Your task to perform on an android device: turn pop-ups on in chrome Image 0: 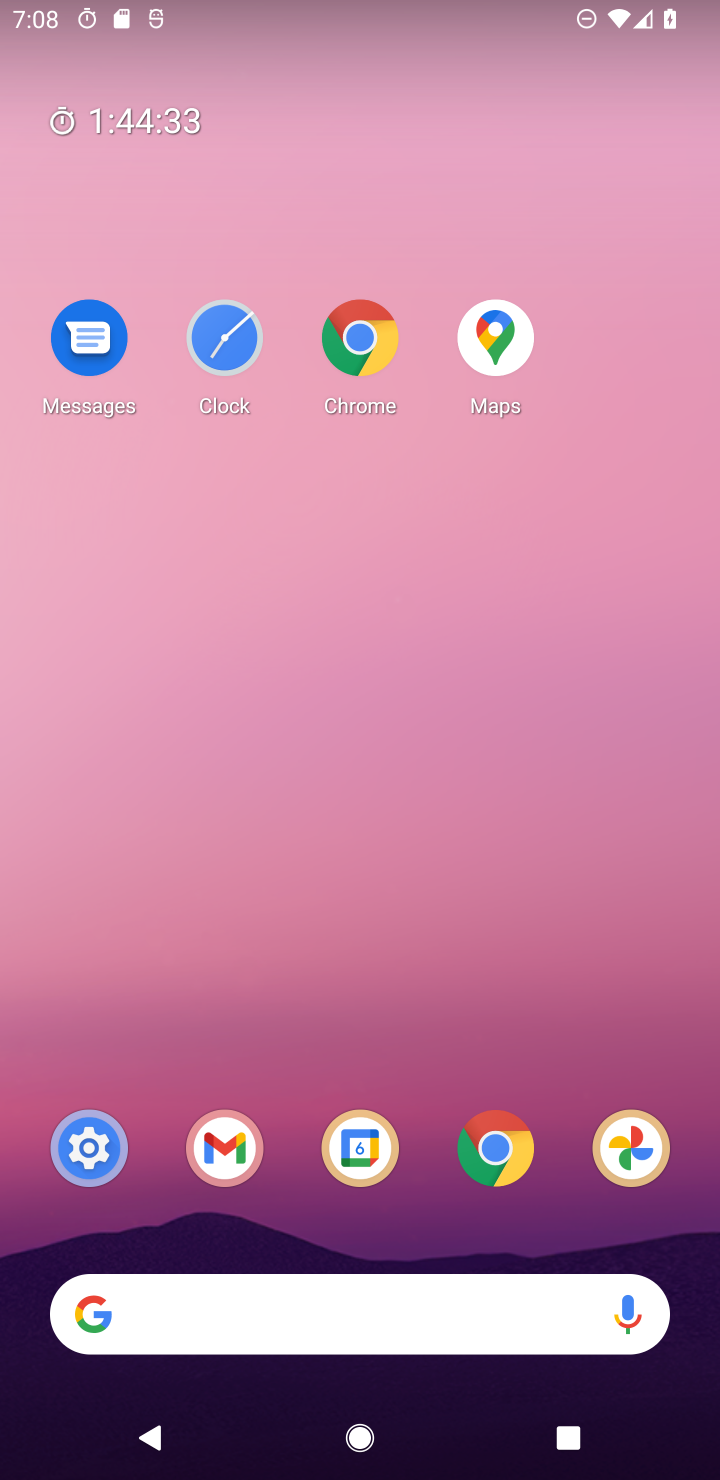
Step 0: drag from (330, 981) to (374, 193)
Your task to perform on an android device: turn pop-ups on in chrome Image 1: 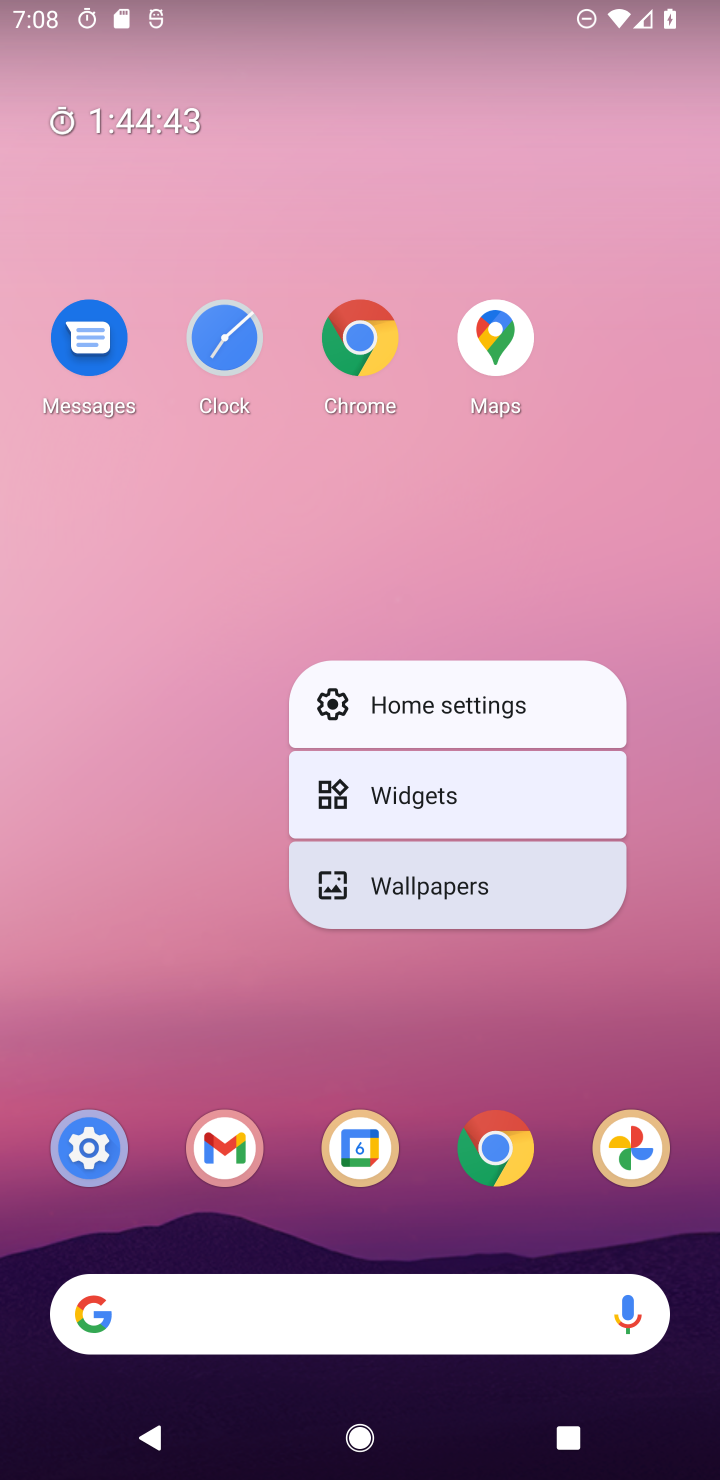
Step 1: drag from (517, 915) to (527, 473)
Your task to perform on an android device: turn pop-ups on in chrome Image 2: 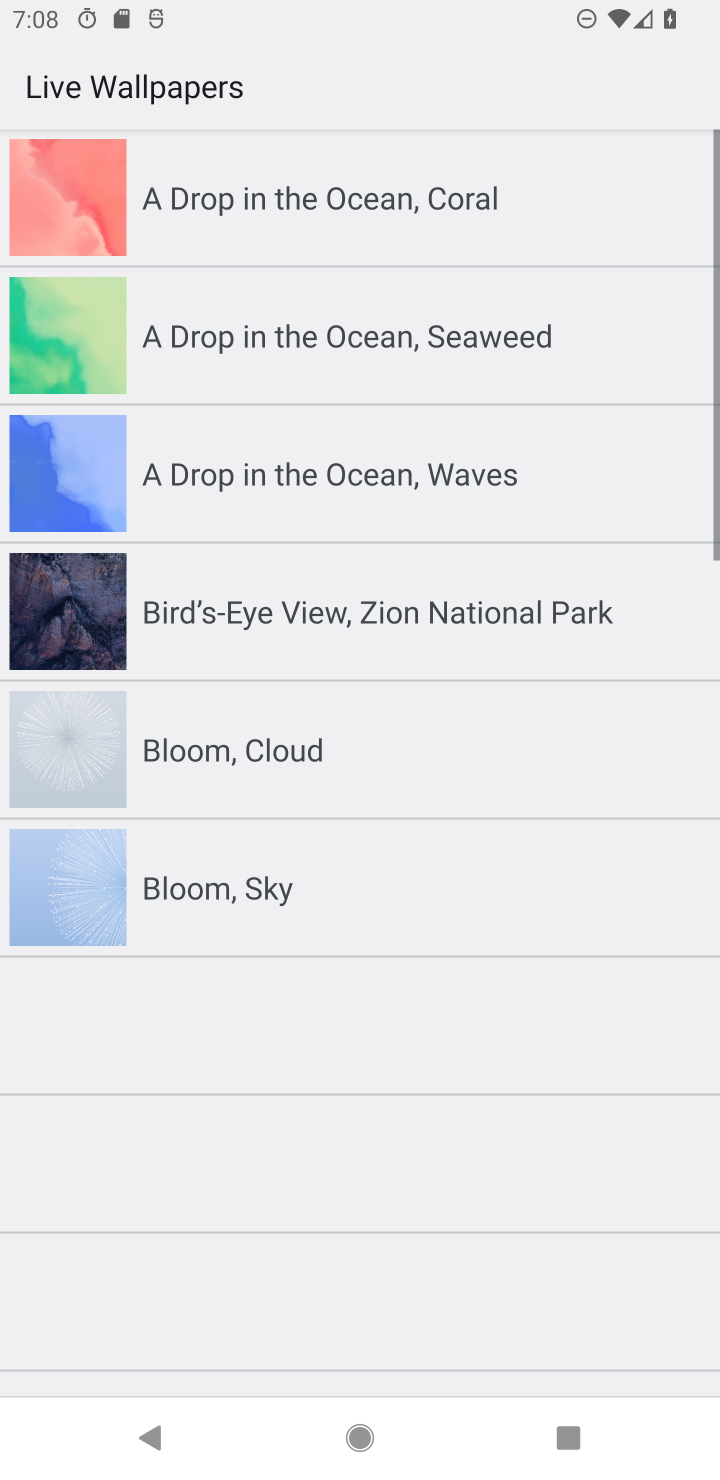
Step 2: press home button
Your task to perform on an android device: turn pop-ups on in chrome Image 3: 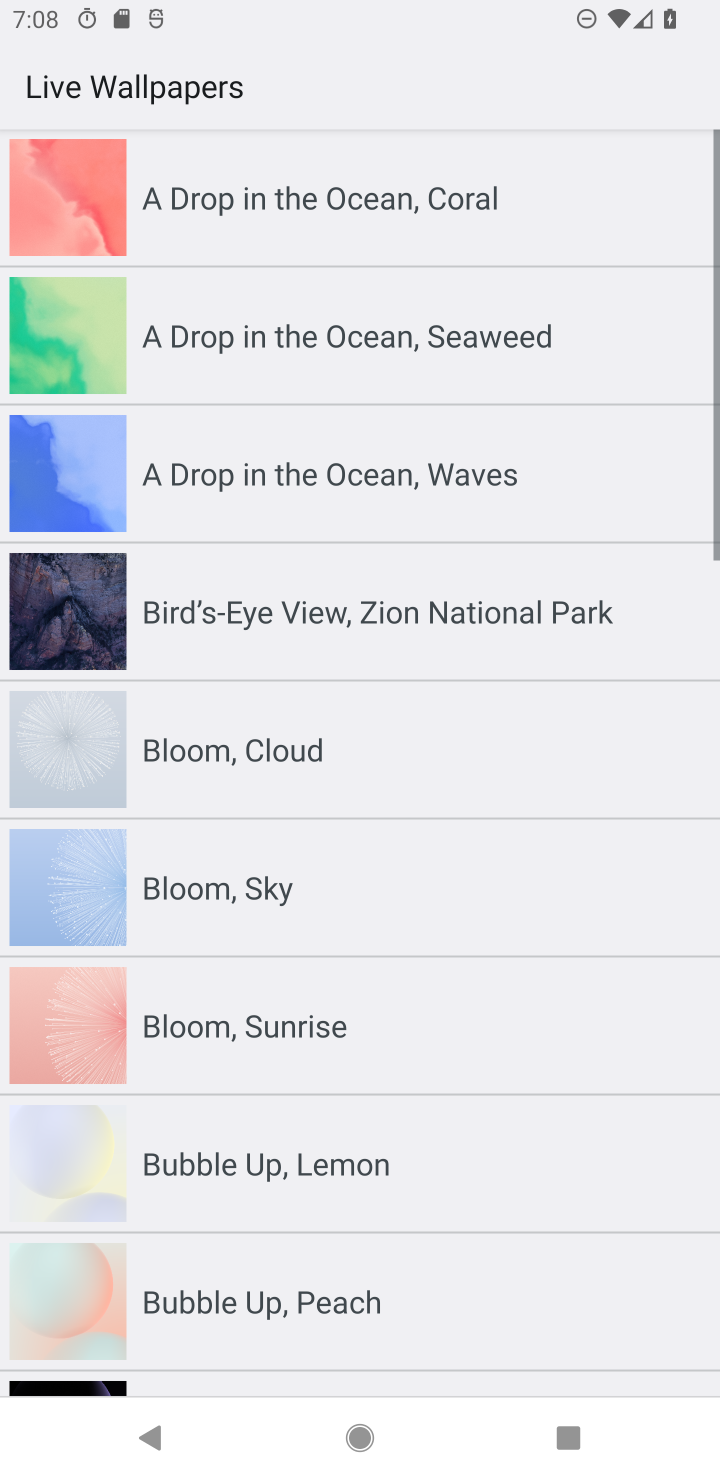
Step 3: press home button
Your task to perform on an android device: turn pop-ups on in chrome Image 4: 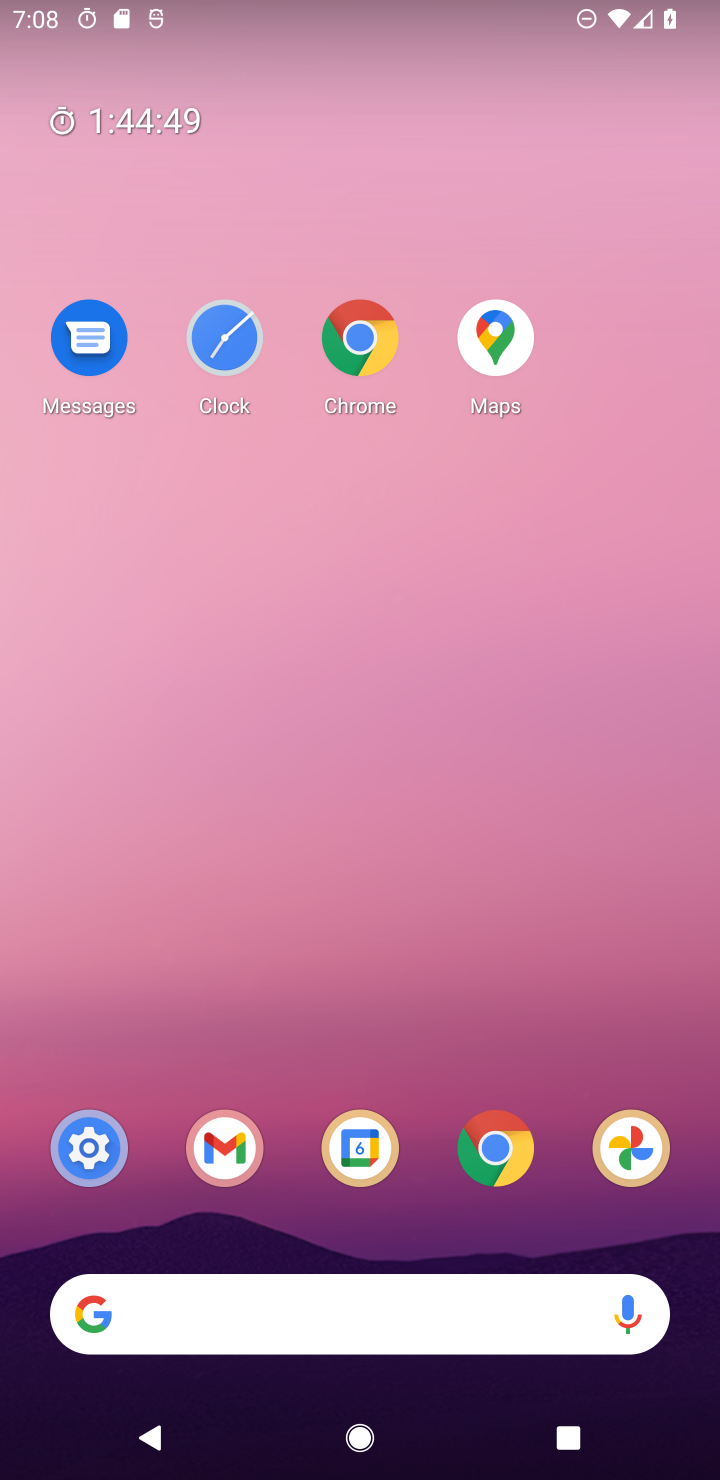
Step 4: drag from (481, 1141) to (634, 222)
Your task to perform on an android device: turn pop-ups on in chrome Image 5: 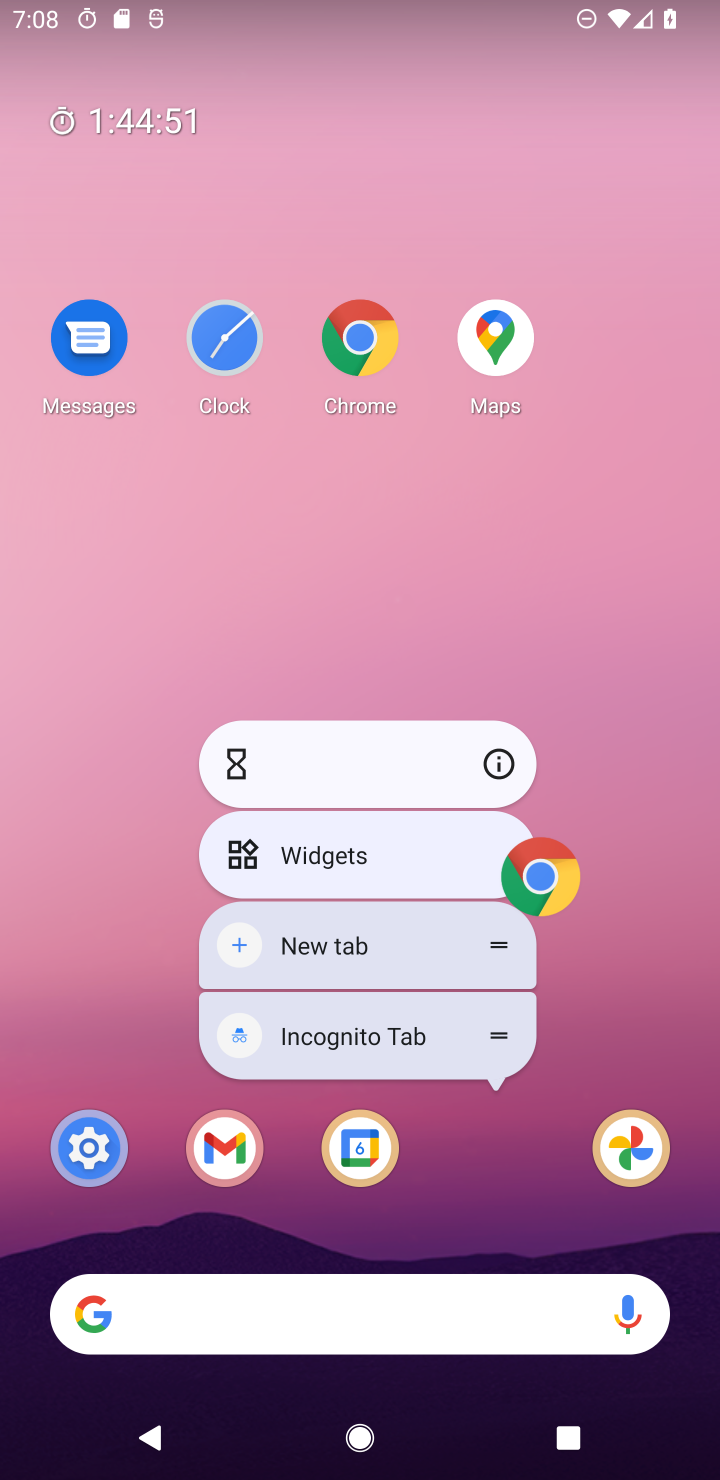
Step 5: press home button
Your task to perform on an android device: turn pop-ups on in chrome Image 6: 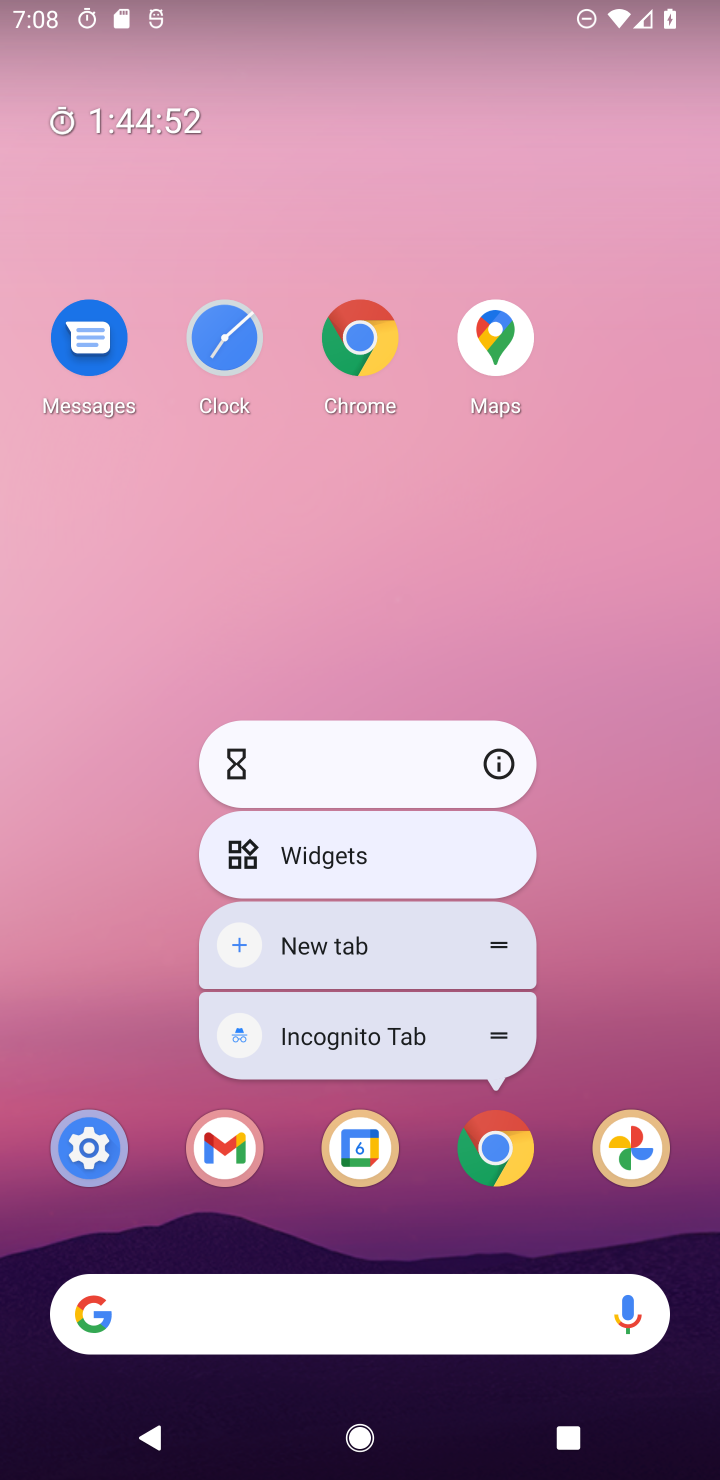
Step 6: press home button
Your task to perform on an android device: turn pop-ups on in chrome Image 7: 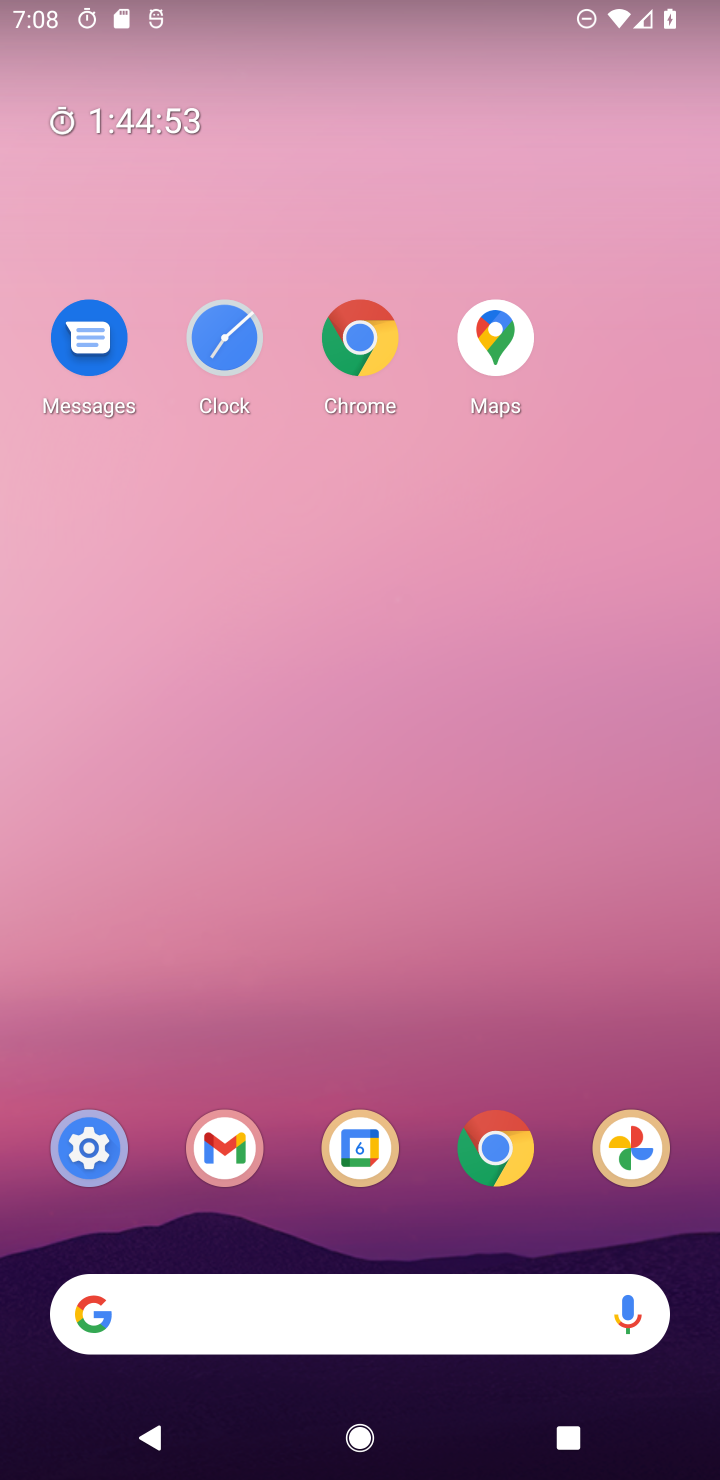
Step 7: drag from (314, 1163) to (394, 389)
Your task to perform on an android device: turn pop-ups on in chrome Image 8: 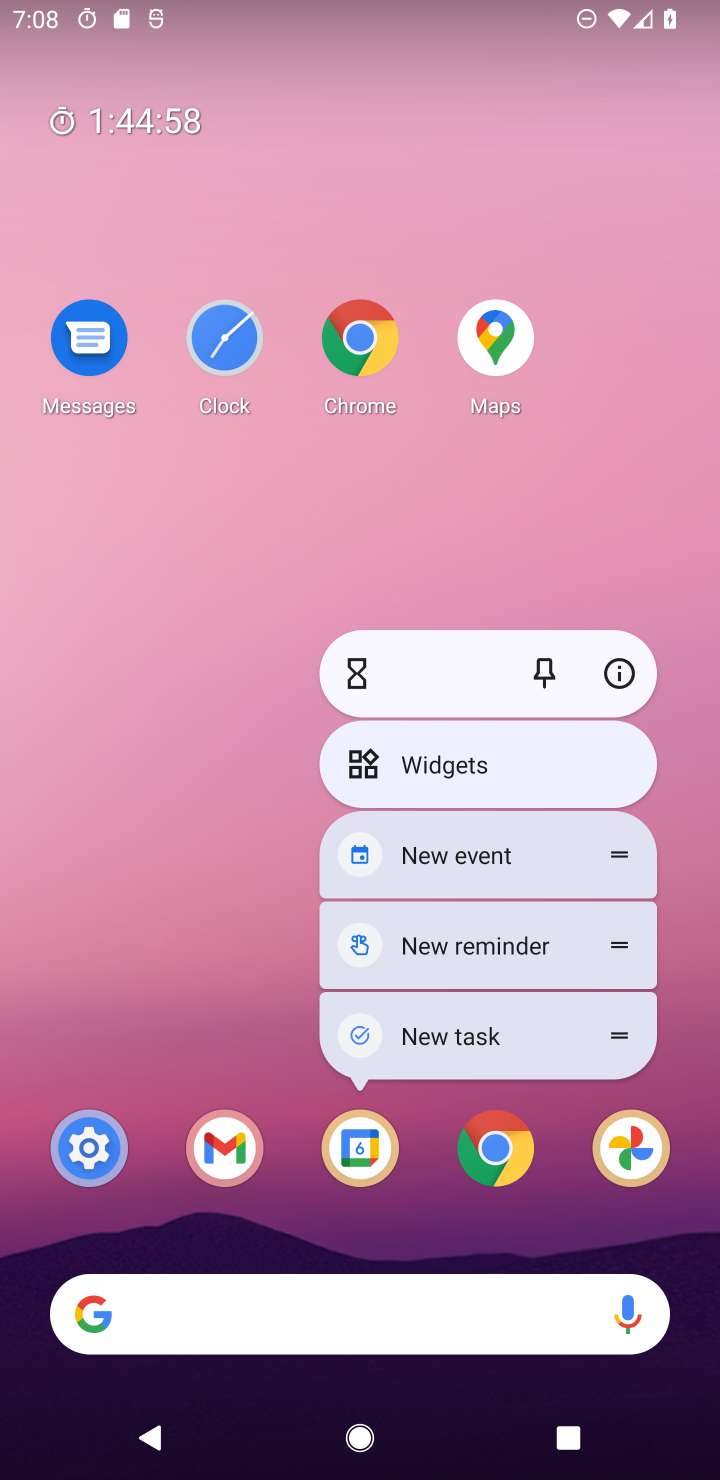
Step 8: drag from (415, 1235) to (449, 436)
Your task to perform on an android device: turn pop-ups on in chrome Image 9: 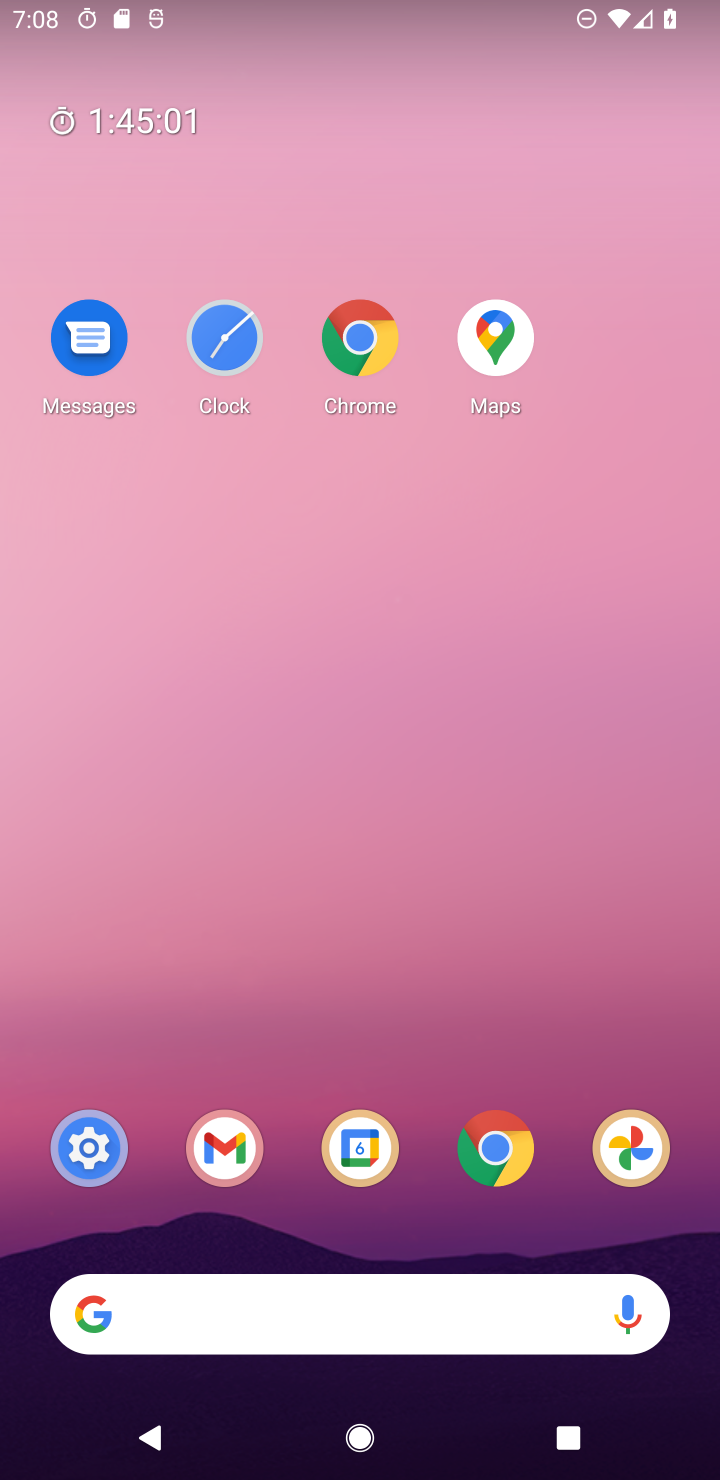
Step 9: drag from (428, 1182) to (423, 321)
Your task to perform on an android device: turn pop-ups on in chrome Image 10: 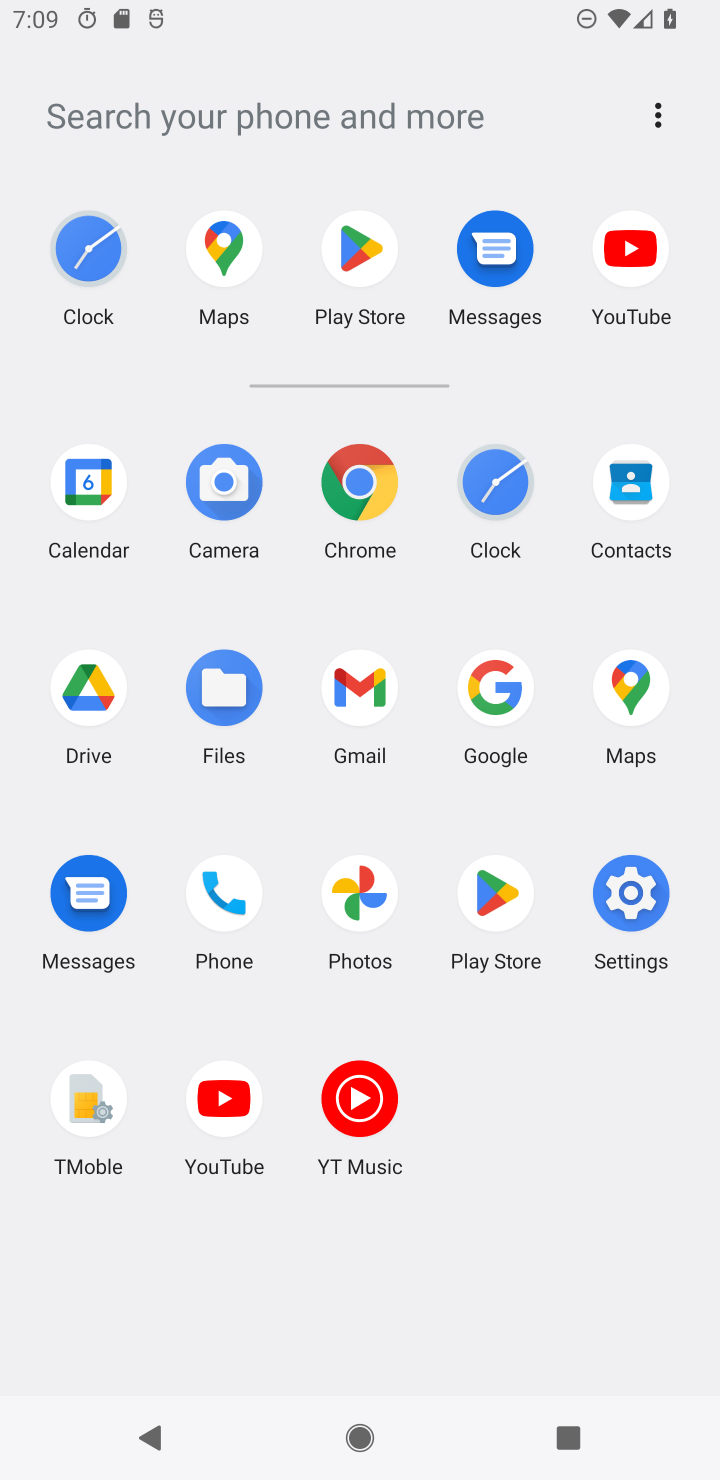
Step 10: click (363, 475)
Your task to perform on an android device: turn pop-ups on in chrome Image 11: 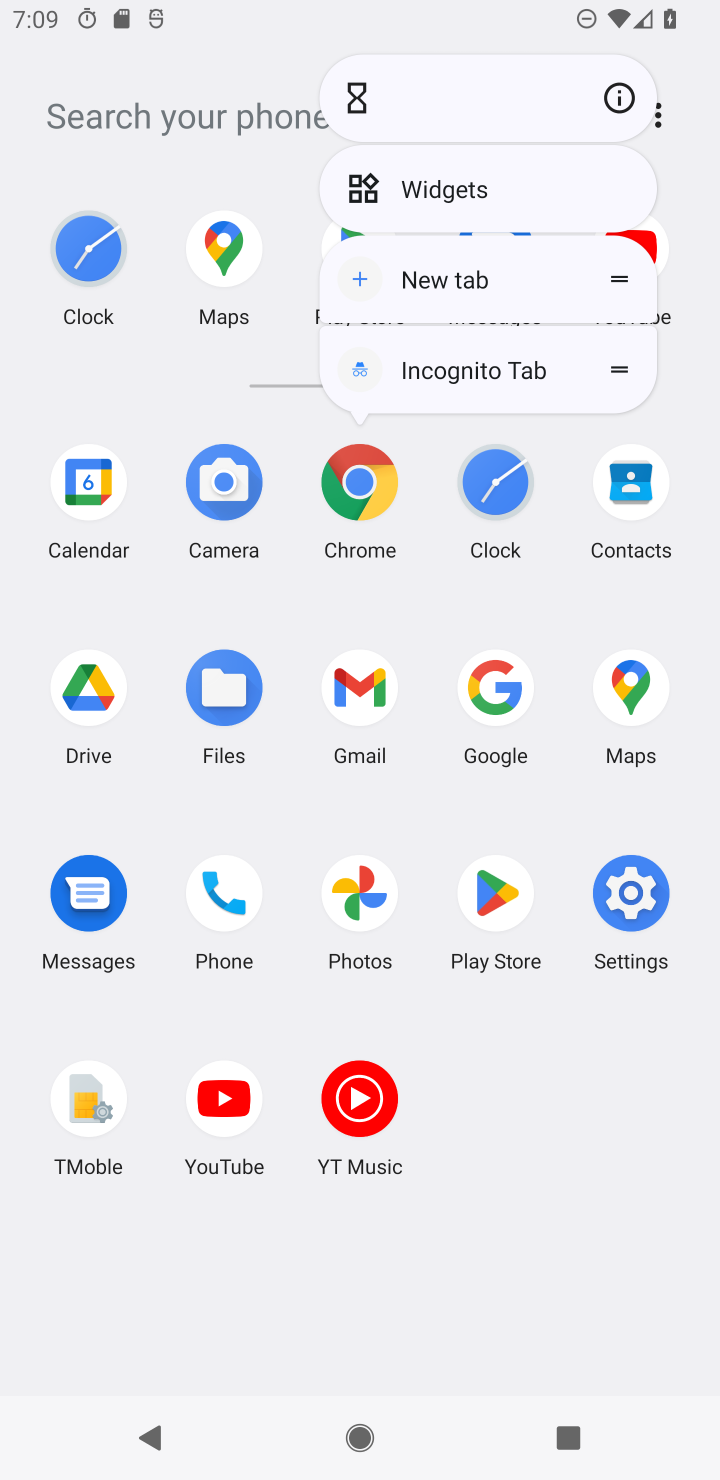
Step 11: click (618, 92)
Your task to perform on an android device: turn pop-ups on in chrome Image 12: 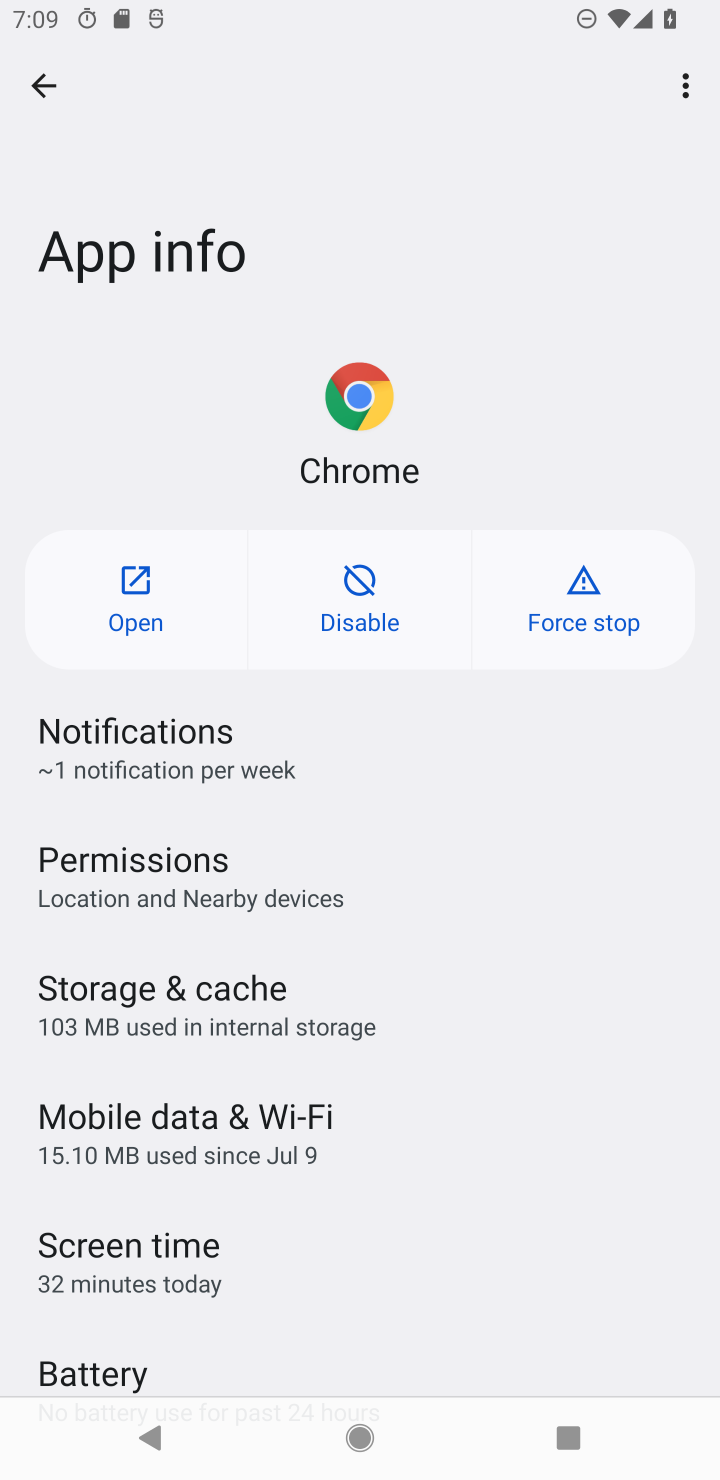
Step 12: click (110, 595)
Your task to perform on an android device: turn pop-ups on in chrome Image 13: 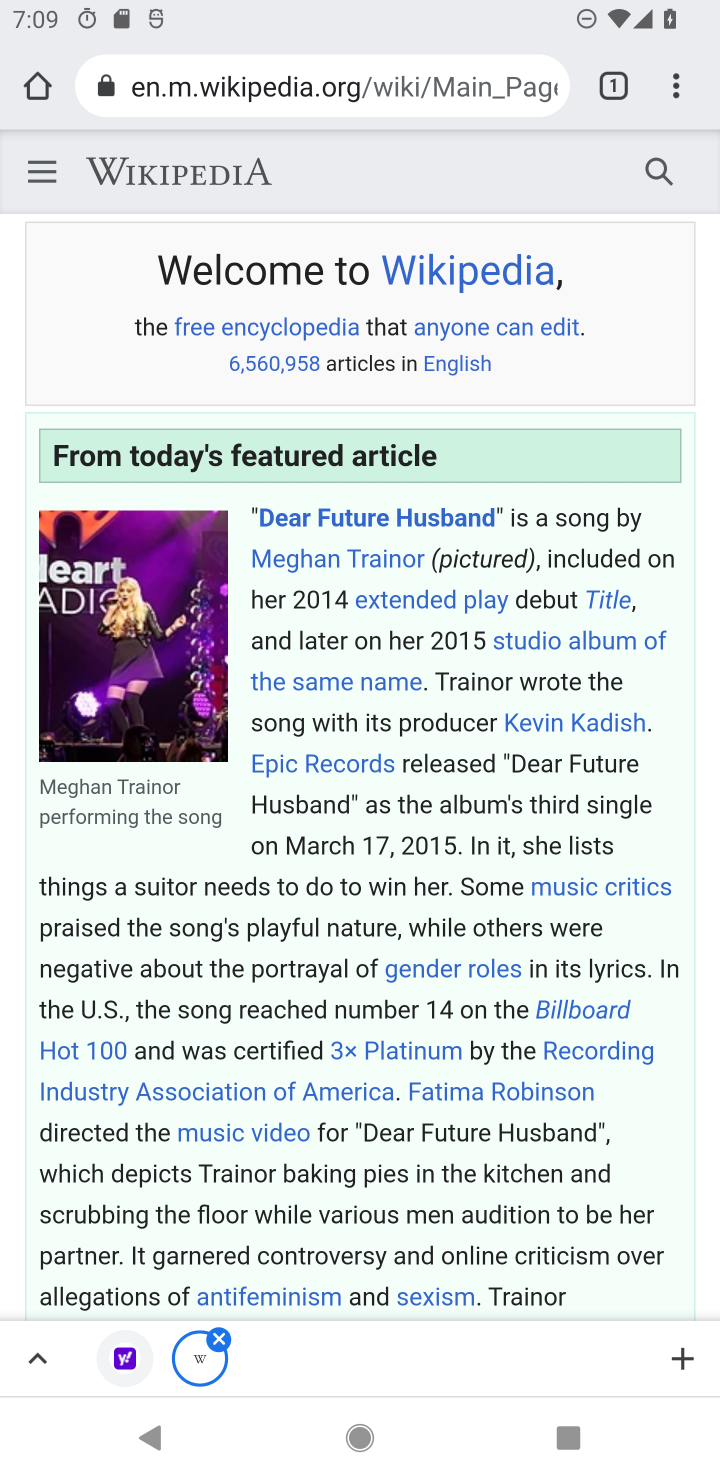
Step 13: drag from (367, 860) to (477, 481)
Your task to perform on an android device: turn pop-ups on in chrome Image 14: 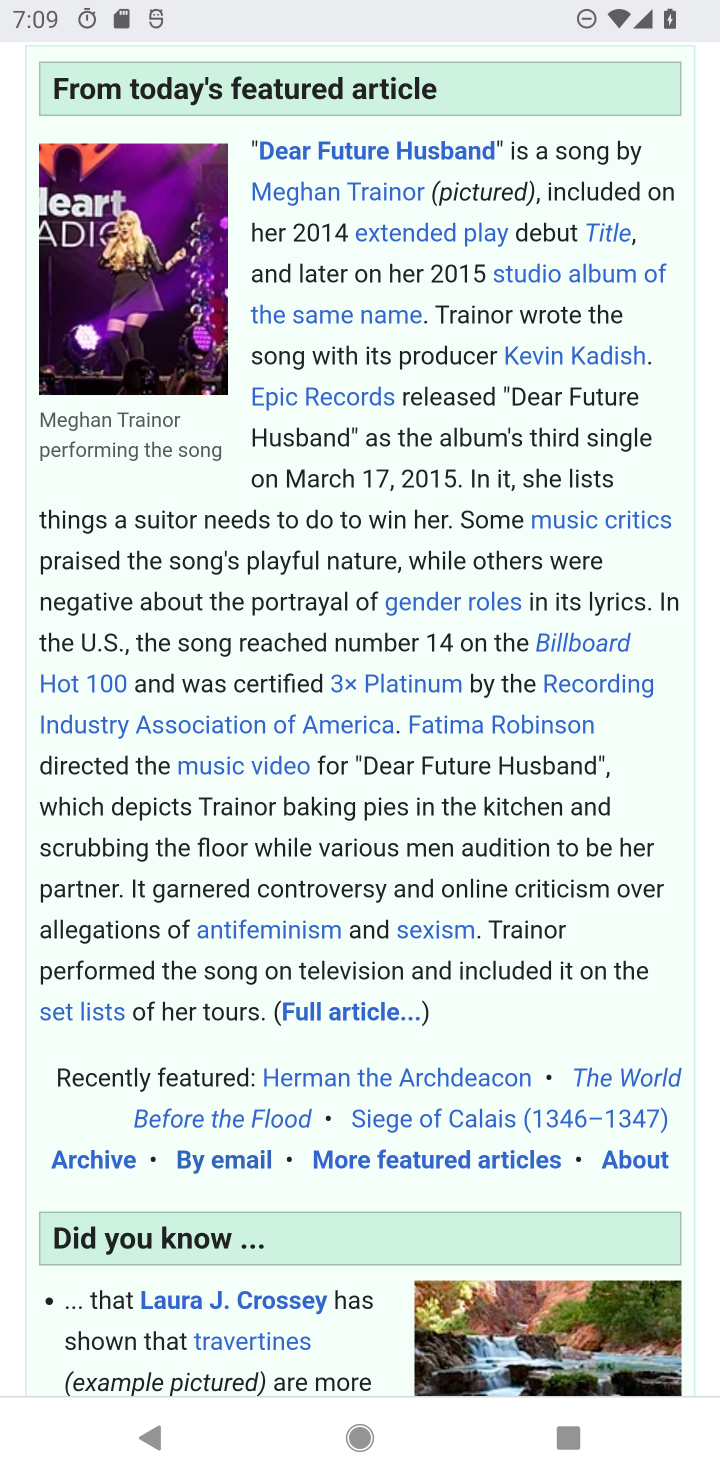
Step 14: drag from (466, 521) to (489, 1183)
Your task to perform on an android device: turn pop-ups on in chrome Image 15: 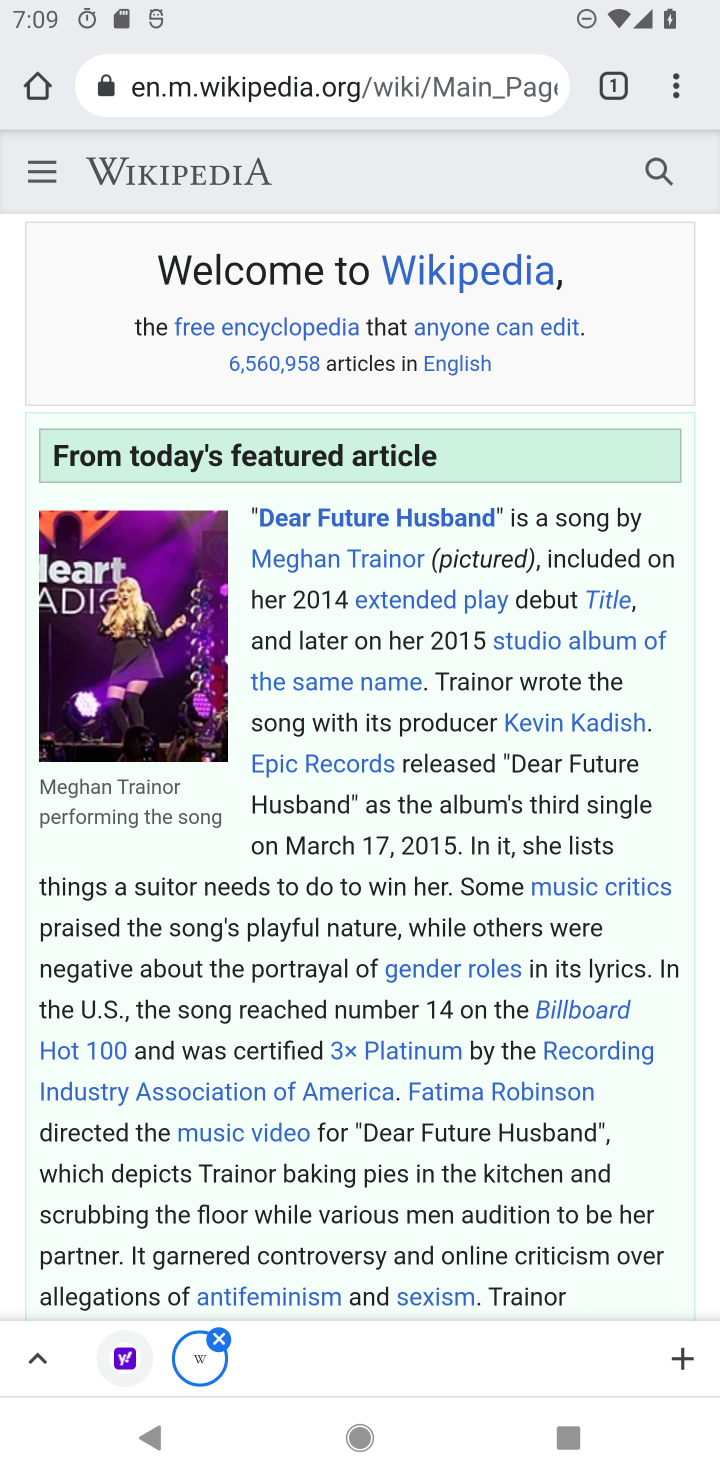
Step 15: drag from (452, 810) to (537, 390)
Your task to perform on an android device: turn pop-ups on in chrome Image 16: 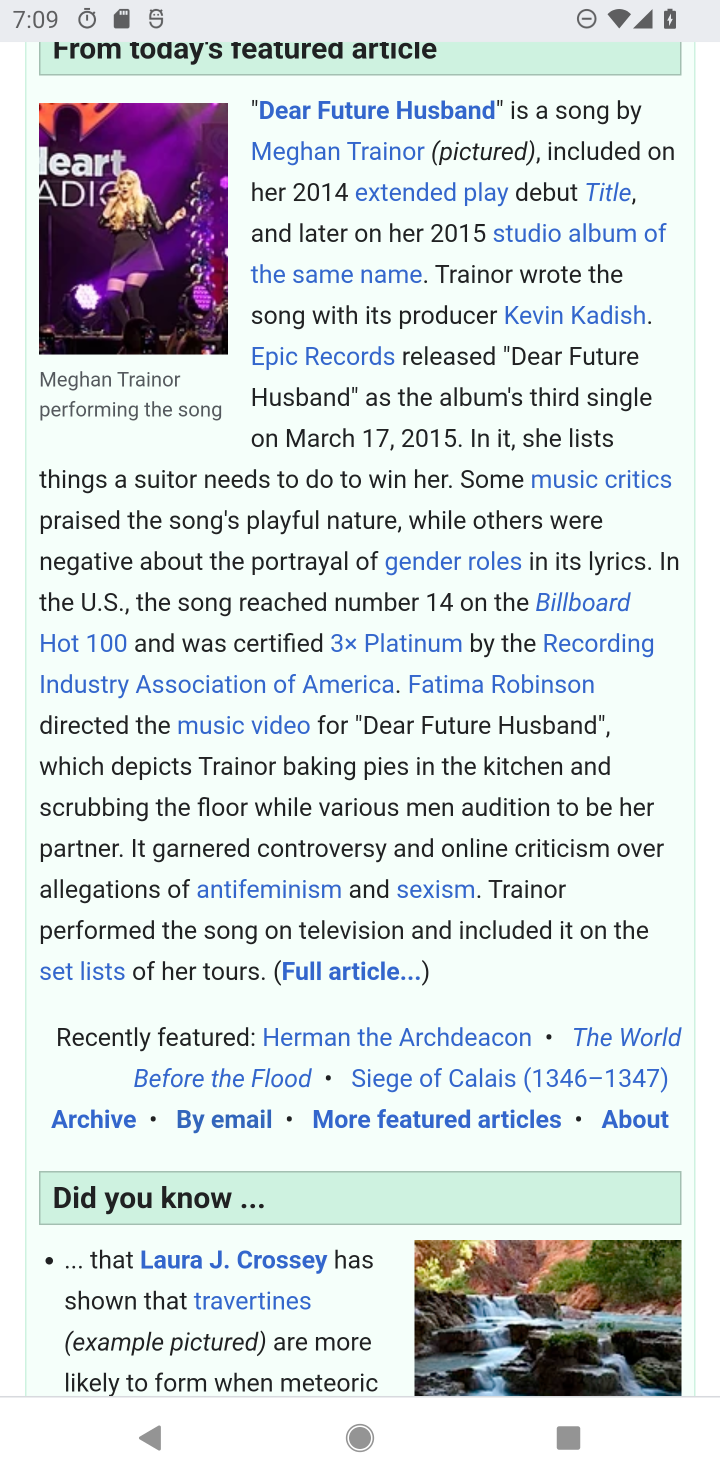
Step 16: drag from (451, 435) to (574, 1479)
Your task to perform on an android device: turn pop-ups on in chrome Image 17: 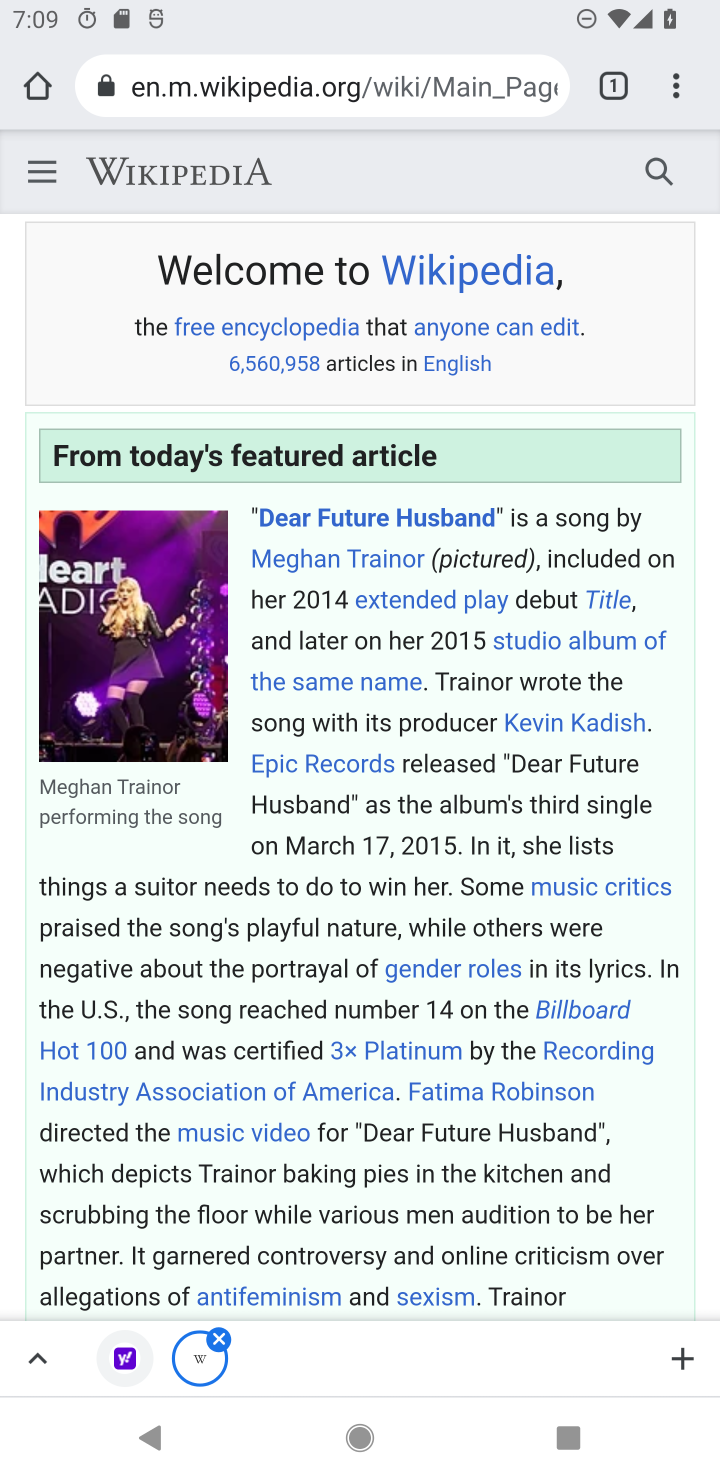
Step 17: drag from (671, 79) to (464, 1153)
Your task to perform on an android device: turn pop-ups on in chrome Image 18: 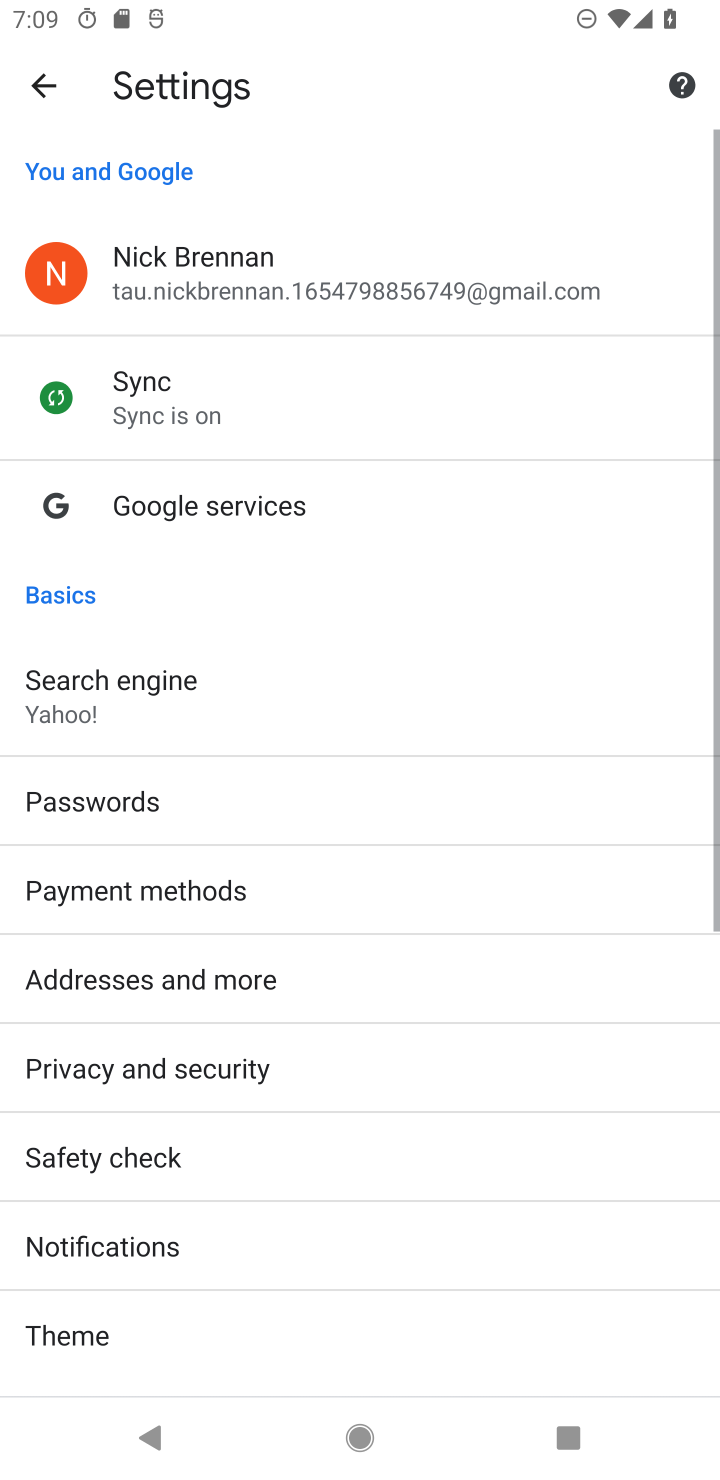
Step 18: drag from (421, 649) to (480, 21)
Your task to perform on an android device: turn pop-ups on in chrome Image 19: 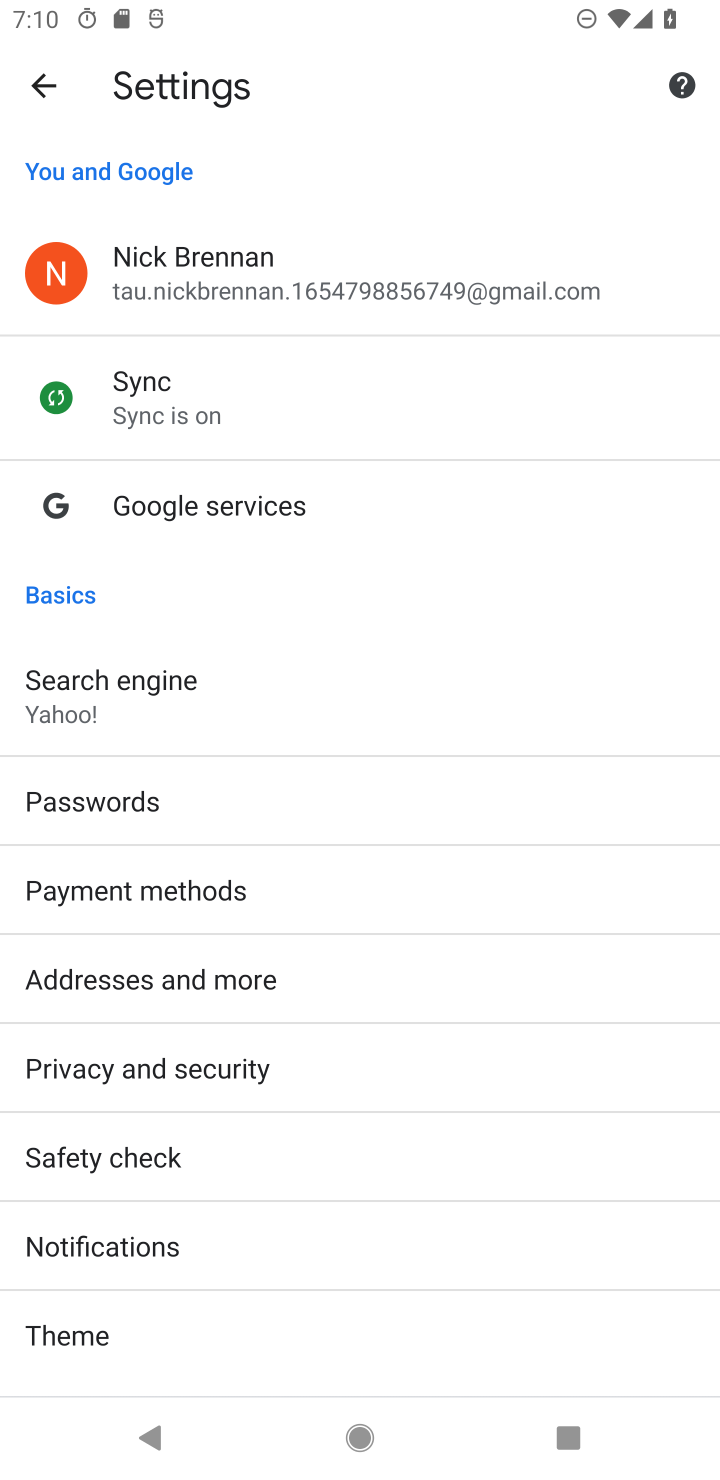
Step 19: drag from (365, 952) to (482, 417)
Your task to perform on an android device: turn pop-ups on in chrome Image 20: 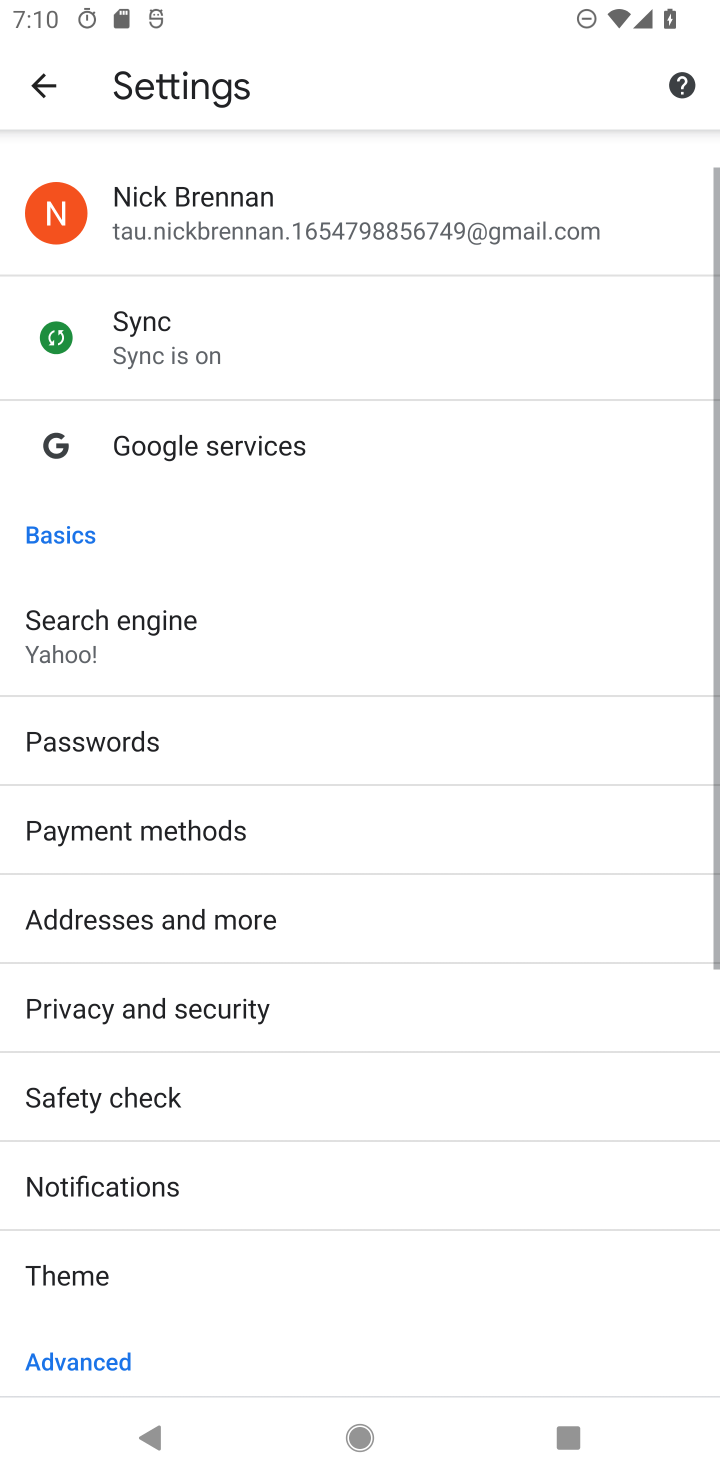
Step 20: drag from (335, 1269) to (370, 675)
Your task to perform on an android device: turn pop-ups on in chrome Image 21: 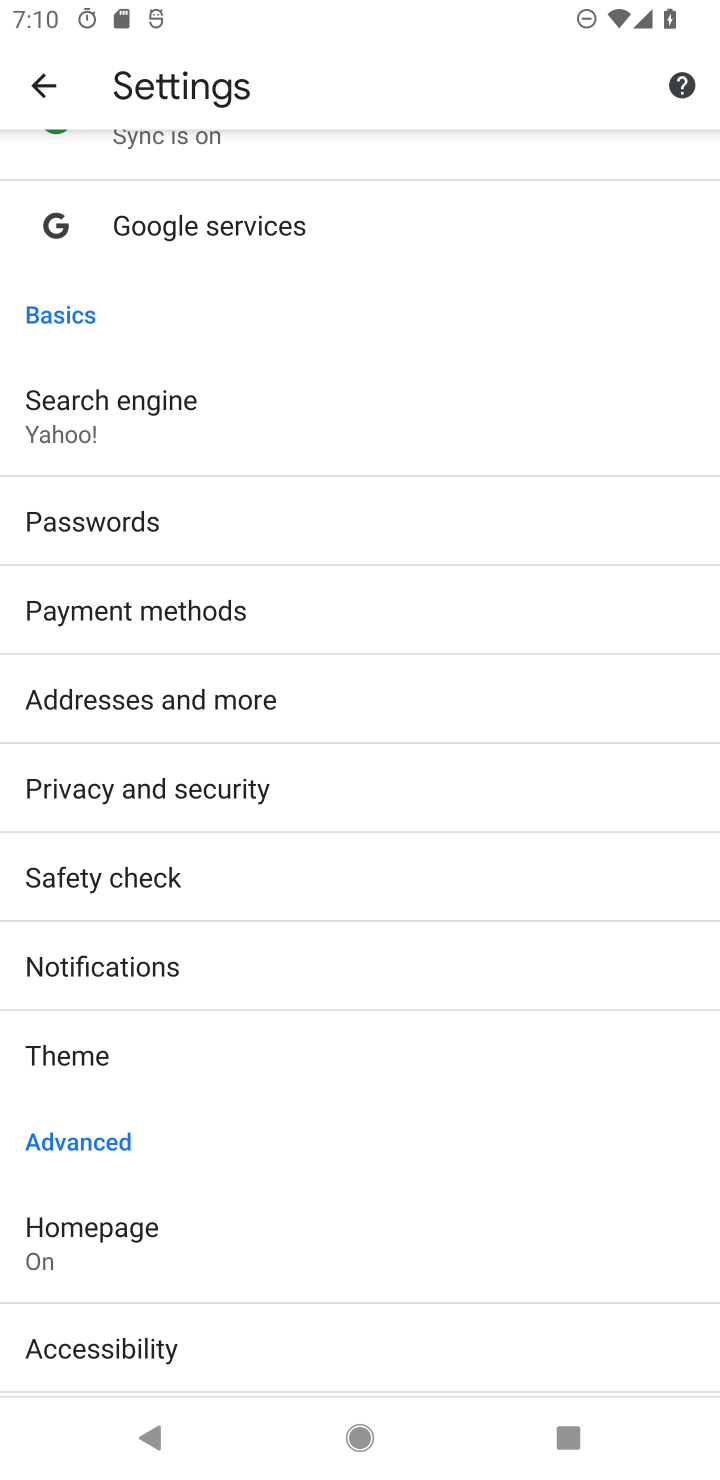
Step 21: drag from (297, 1308) to (417, 316)
Your task to perform on an android device: turn pop-ups on in chrome Image 22: 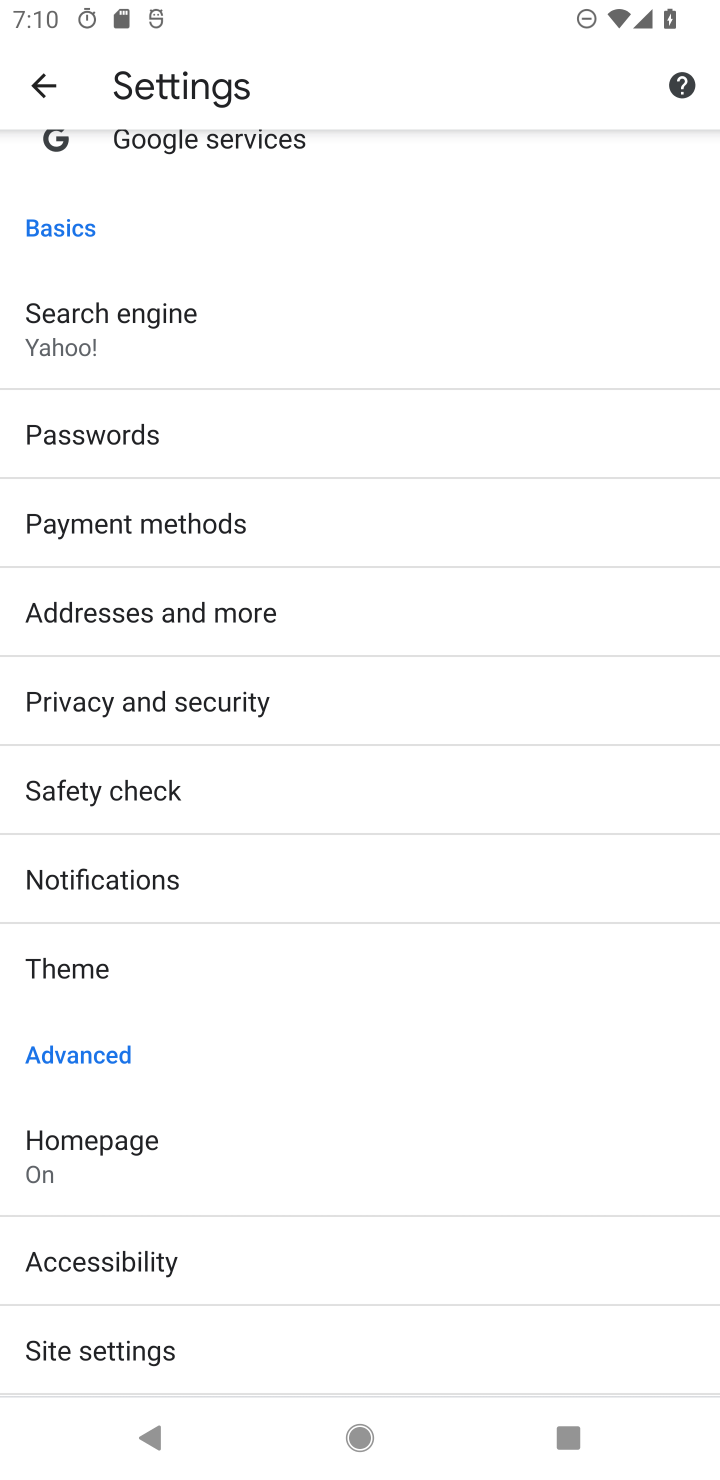
Step 22: drag from (390, 1101) to (473, 267)
Your task to perform on an android device: turn pop-ups on in chrome Image 23: 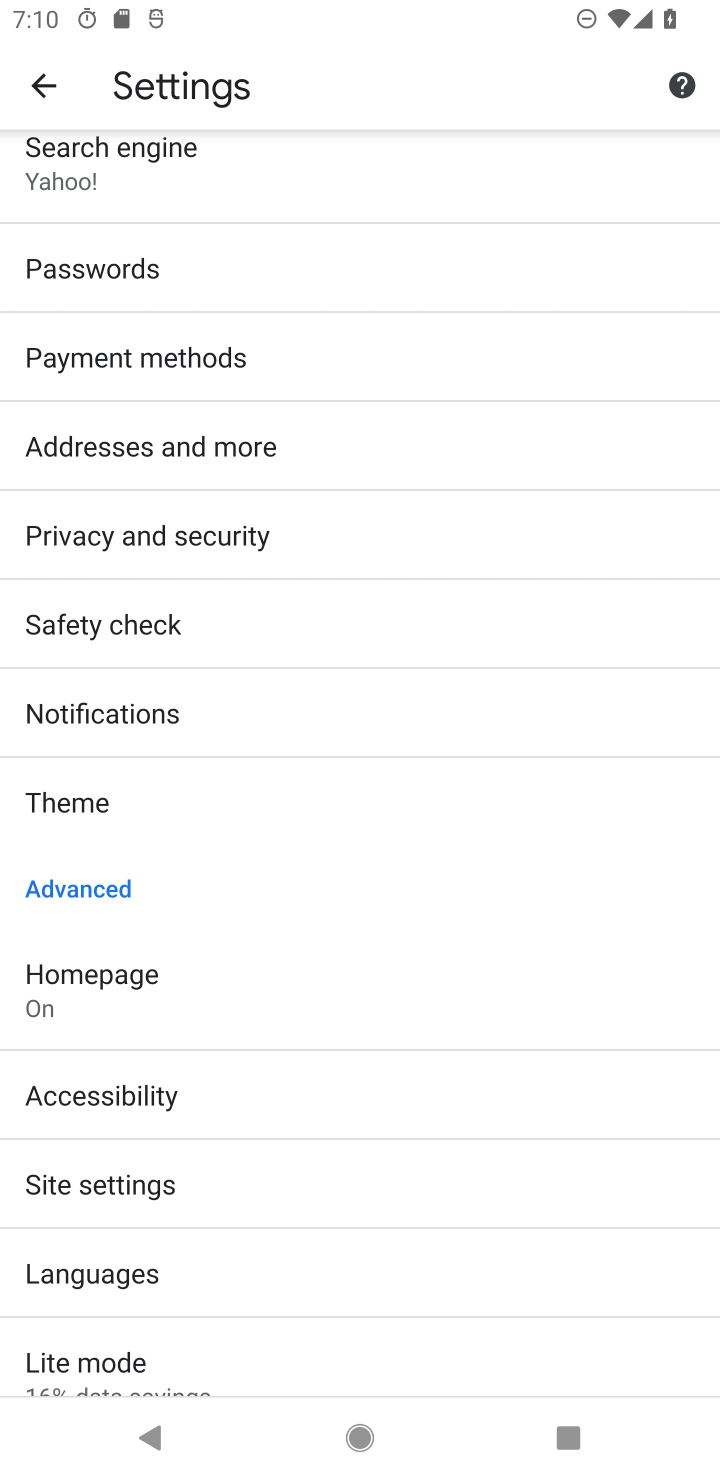
Step 23: click (219, 1168)
Your task to perform on an android device: turn pop-ups on in chrome Image 24: 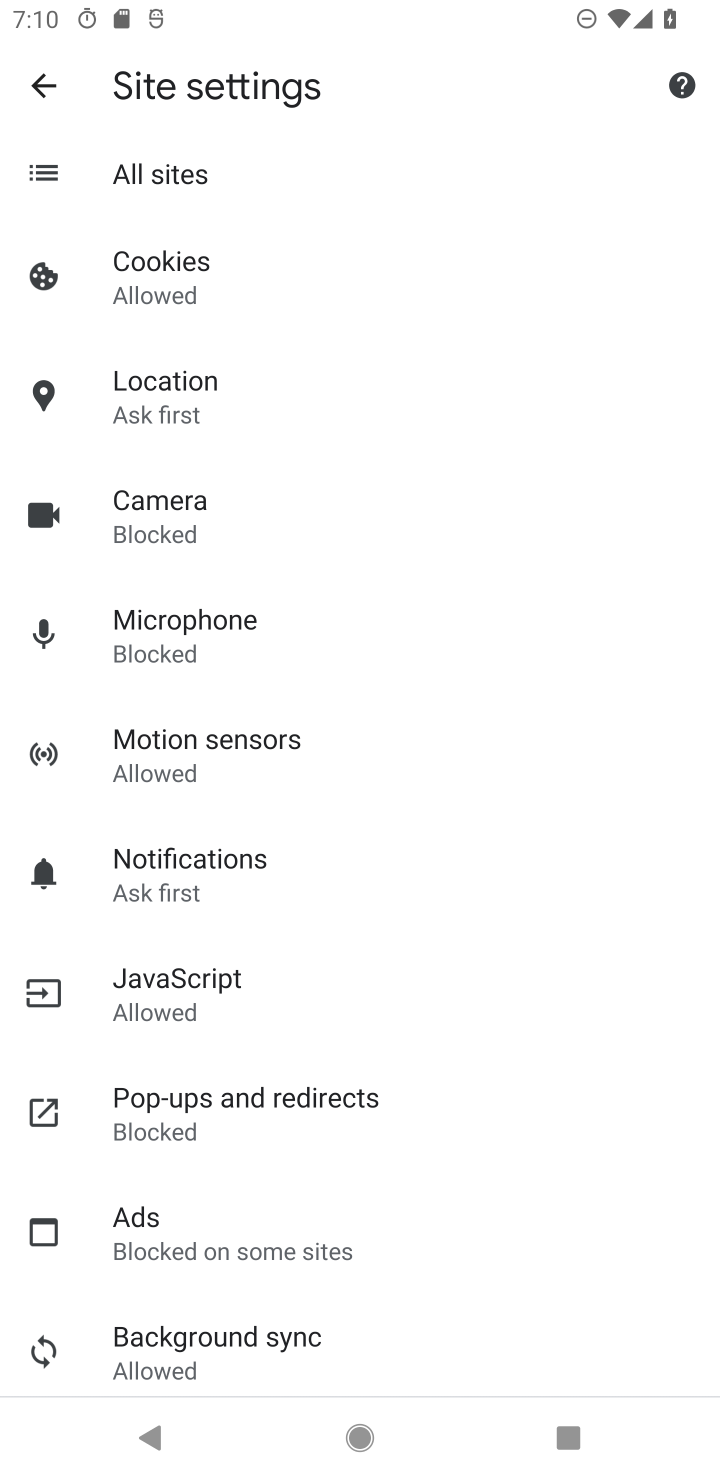
Step 24: click (281, 1106)
Your task to perform on an android device: turn pop-ups on in chrome Image 25: 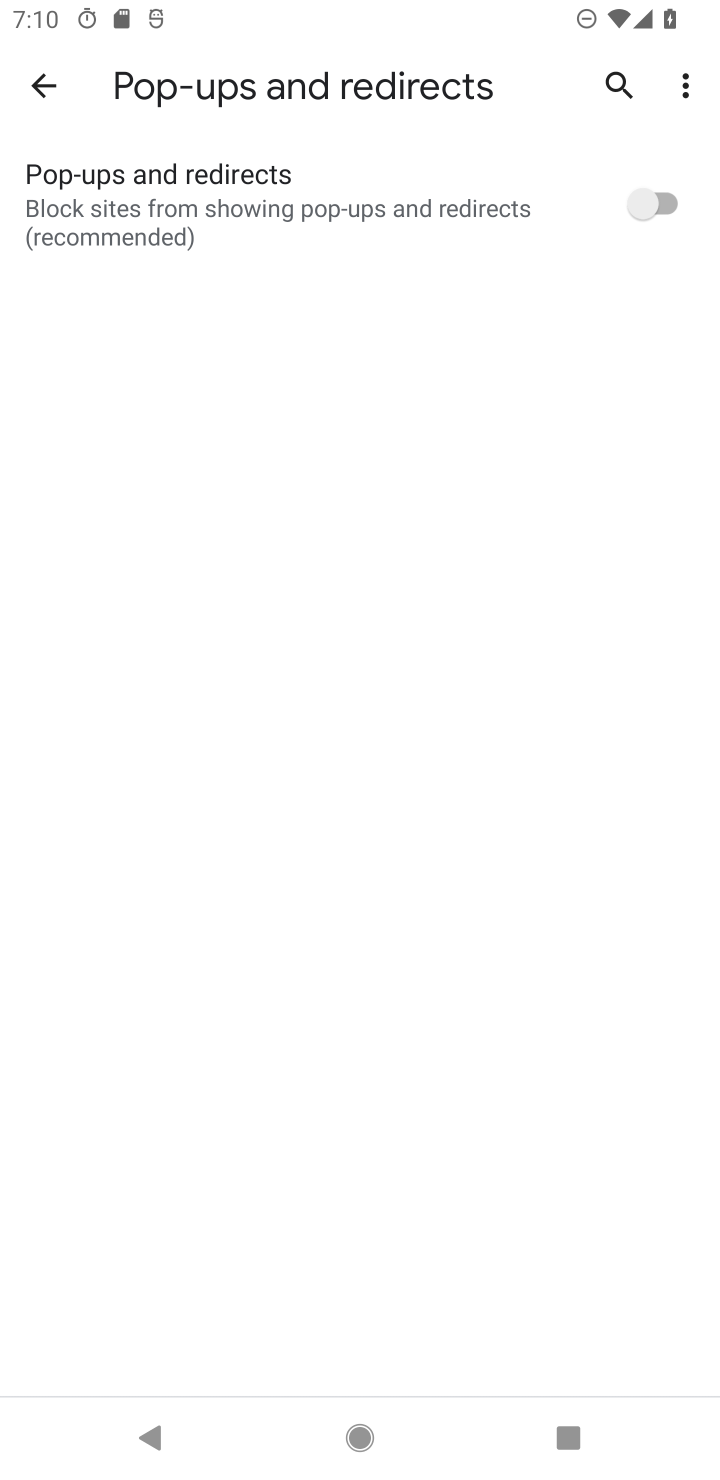
Step 25: click (609, 221)
Your task to perform on an android device: turn pop-ups on in chrome Image 26: 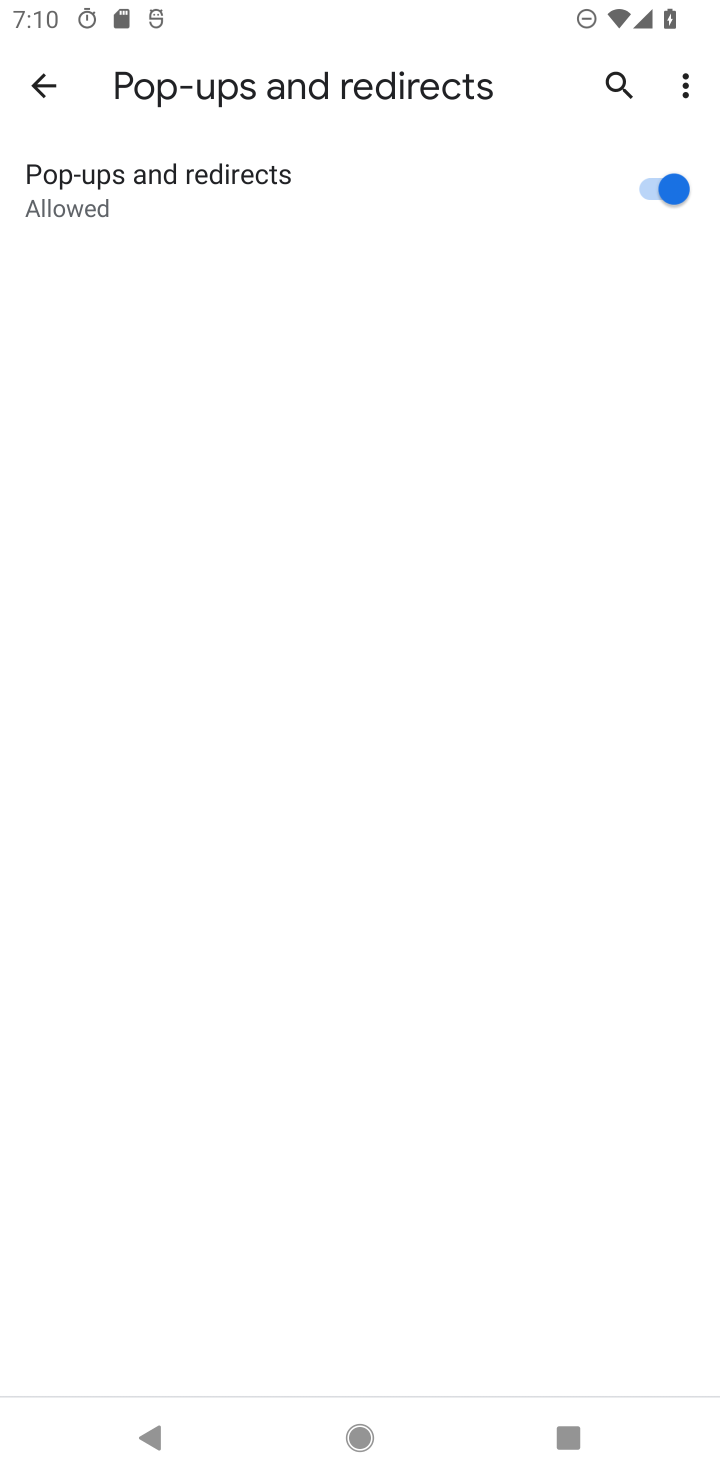
Step 26: task complete